Your task to perform on an android device: Search for the best rated wireless headphones on Amazon. Image 0: 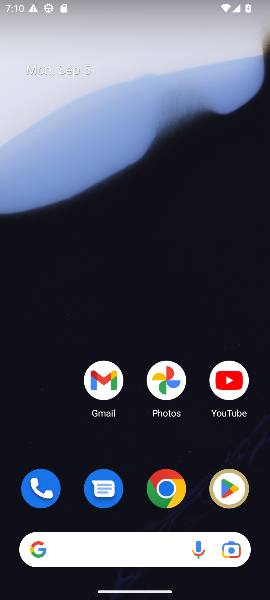
Step 0: click (168, 488)
Your task to perform on an android device: Search for the best rated wireless headphones on Amazon. Image 1: 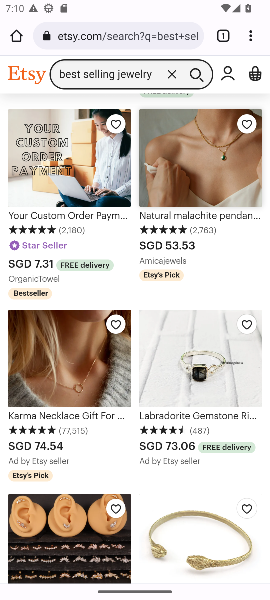
Step 1: click (141, 31)
Your task to perform on an android device: Search for the best rated wireless headphones on Amazon. Image 2: 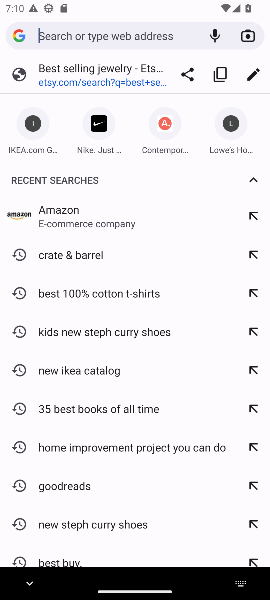
Step 2: type "amazon"
Your task to perform on an android device: Search for the best rated wireless headphones on Amazon. Image 3: 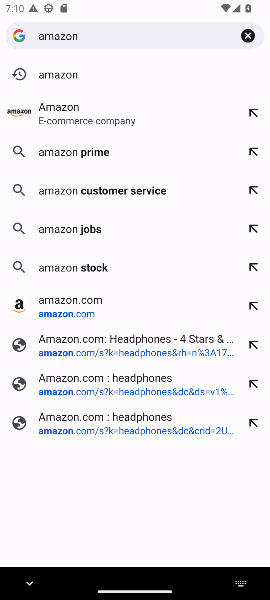
Step 3: press enter
Your task to perform on an android device: Search for the best rated wireless headphones on Amazon. Image 4: 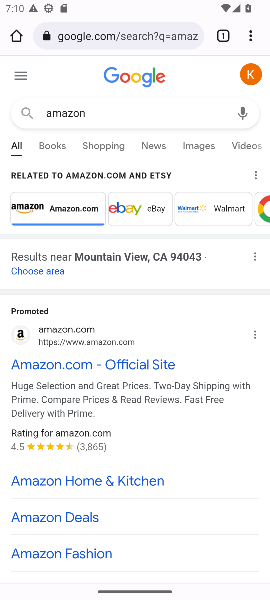
Step 4: click (47, 365)
Your task to perform on an android device: Search for the best rated wireless headphones on Amazon. Image 5: 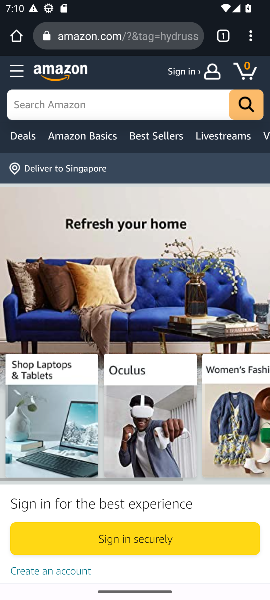
Step 5: click (106, 108)
Your task to perform on an android device: Search for the best rated wireless headphones on Amazon. Image 6: 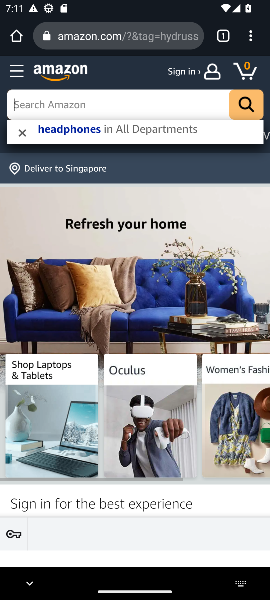
Step 6: type "wireless headphones"
Your task to perform on an android device: Search for the best rated wireless headphones on Amazon. Image 7: 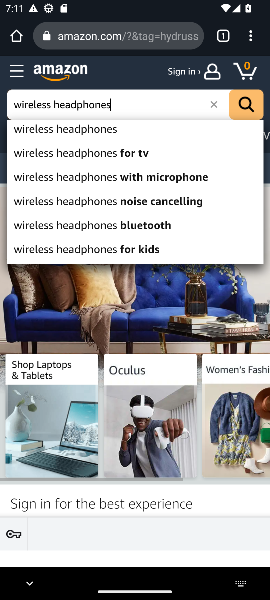
Step 7: press enter
Your task to perform on an android device: Search for the best rated wireless headphones on Amazon. Image 8: 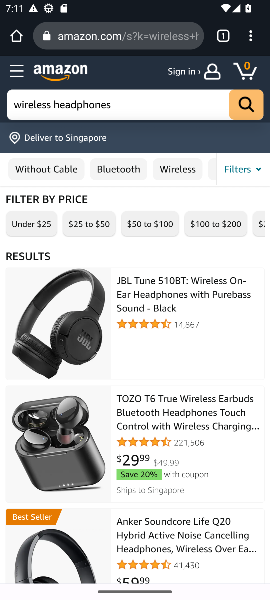
Step 8: click (240, 172)
Your task to perform on an android device: Search for the best rated wireless headphones on Amazon. Image 9: 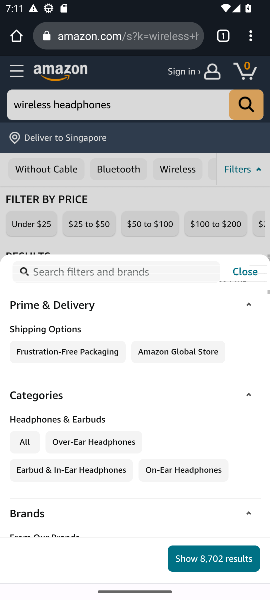
Step 9: drag from (232, 401) to (231, 217)
Your task to perform on an android device: Search for the best rated wireless headphones on Amazon. Image 10: 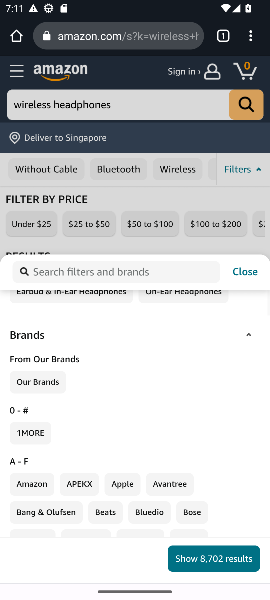
Step 10: drag from (207, 446) to (222, 226)
Your task to perform on an android device: Search for the best rated wireless headphones on Amazon. Image 11: 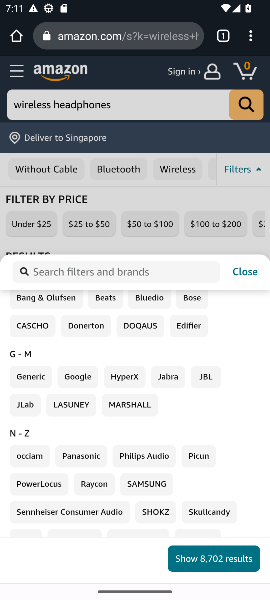
Step 11: drag from (227, 462) to (233, 268)
Your task to perform on an android device: Search for the best rated wireless headphones on Amazon. Image 12: 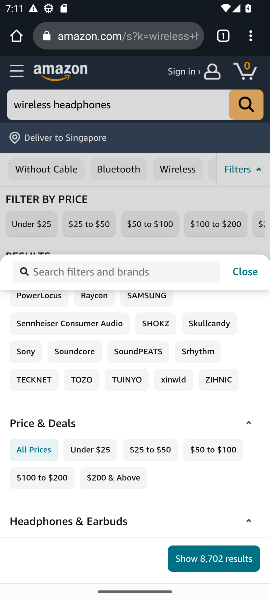
Step 12: drag from (220, 484) to (232, 287)
Your task to perform on an android device: Search for the best rated wireless headphones on Amazon. Image 13: 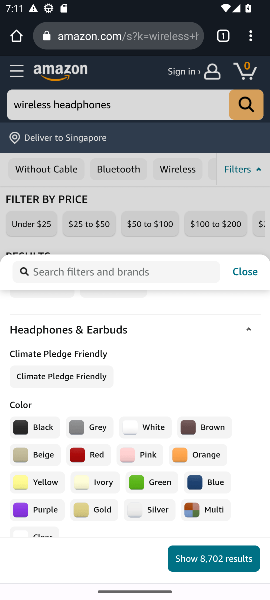
Step 13: drag from (230, 486) to (233, 289)
Your task to perform on an android device: Search for the best rated wireless headphones on Amazon. Image 14: 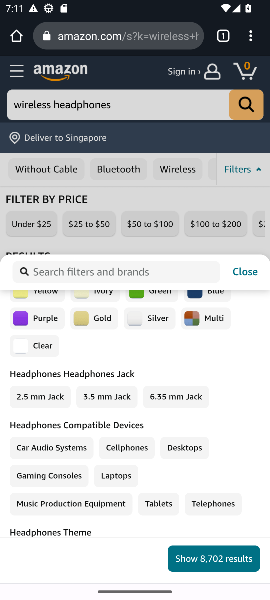
Step 14: drag from (193, 521) to (196, 331)
Your task to perform on an android device: Search for the best rated wireless headphones on Amazon. Image 15: 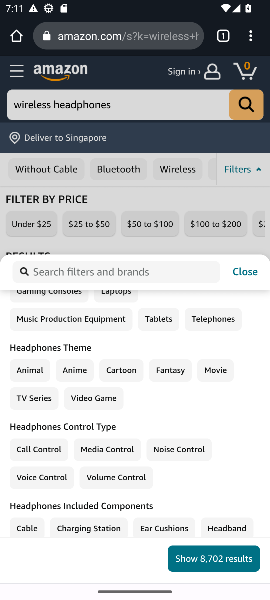
Step 15: drag from (210, 489) to (228, 299)
Your task to perform on an android device: Search for the best rated wireless headphones on Amazon. Image 16: 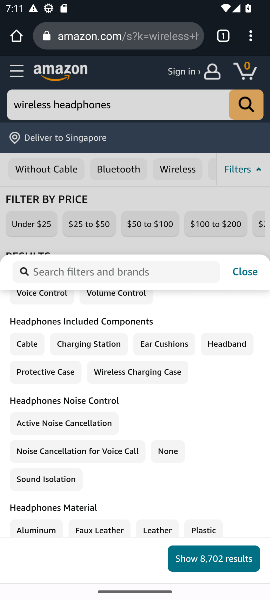
Step 16: drag from (196, 481) to (221, 282)
Your task to perform on an android device: Search for the best rated wireless headphones on Amazon. Image 17: 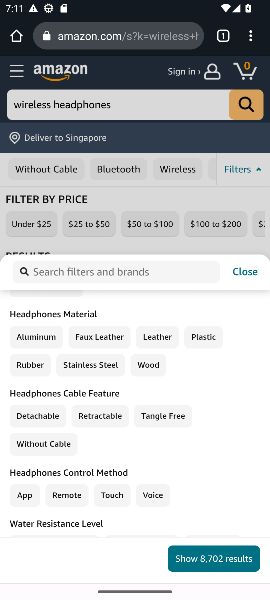
Step 17: drag from (178, 518) to (213, 291)
Your task to perform on an android device: Search for the best rated wireless headphones on Amazon. Image 18: 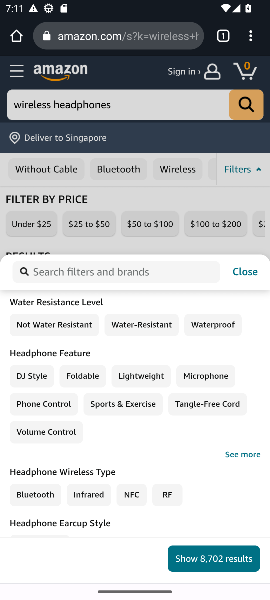
Step 18: drag from (175, 524) to (212, 295)
Your task to perform on an android device: Search for the best rated wireless headphones on Amazon. Image 19: 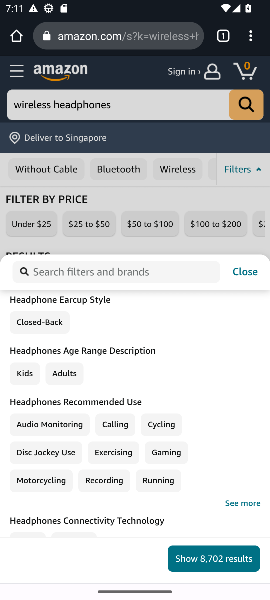
Step 19: drag from (187, 506) to (223, 271)
Your task to perform on an android device: Search for the best rated wireless headphones on Amazon. Image 20: 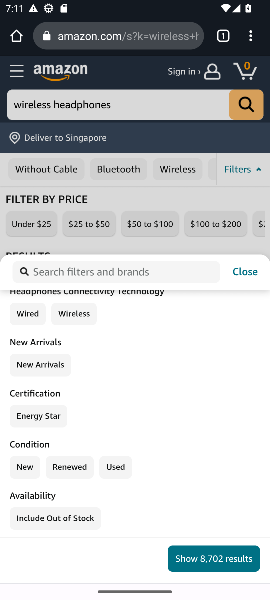
Step 20: drag from (154, 496) to (175, 315)
Your task to perform on an android device: Search for the best rated wireless headphones on Amazon. Image 21: 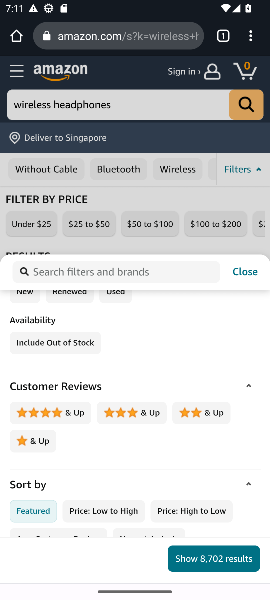
Step 21: click (50, 412)
Your task to perform on an android device: Search for the best rated wireless headphones on Amazon. Image 22: 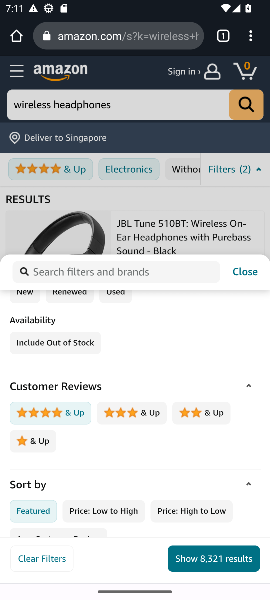
Step 22: click (216, 557)
Your task to perform on an android device: Search for the best rated wireless headphones on Amazon. Image 23: 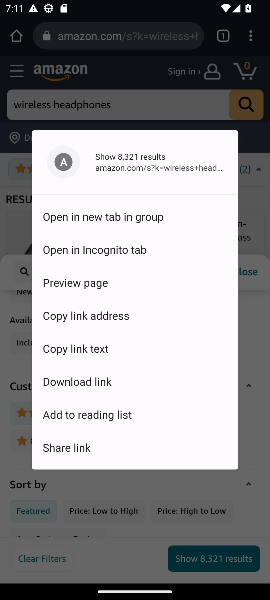
Step 23: click (216, 557)
Your task to perform on an android device: Search for the best rated wireless headphones on Amazon. Image 24: 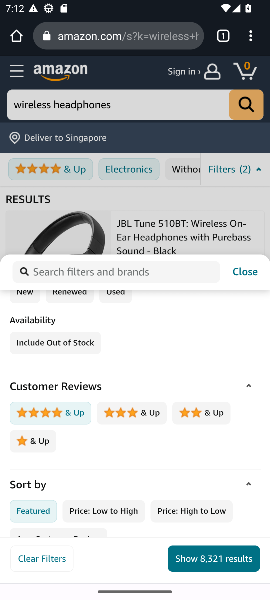
Step 24: click (216, 557)
Your task to perform on an android device: Search for the best rated wireless headphones on Amazon. Image 25: 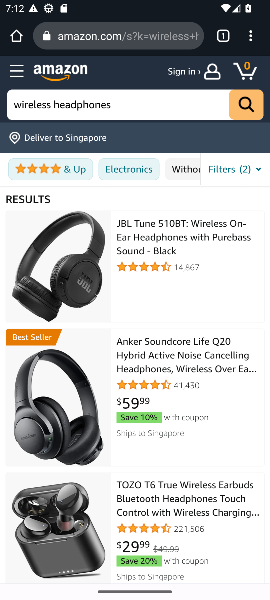
Step 25: task complete